Your task to perform on an android device: Open privacy settings Image 0: 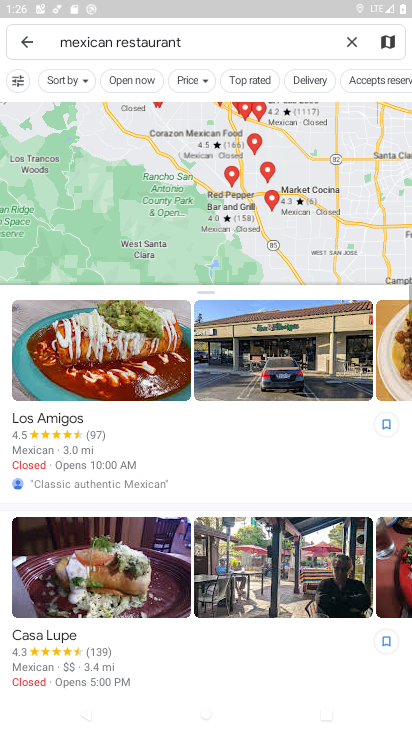
Step 0: drag from (220, 587) to (197, 162)
Your task to perform on an android device: Open privacy settings Image 1: 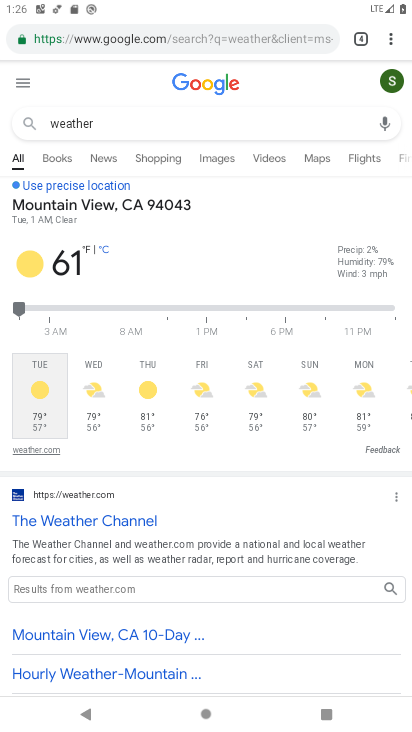
Step 1: press home button
Your task to perform on an android device: Open privacy settings Image 2: 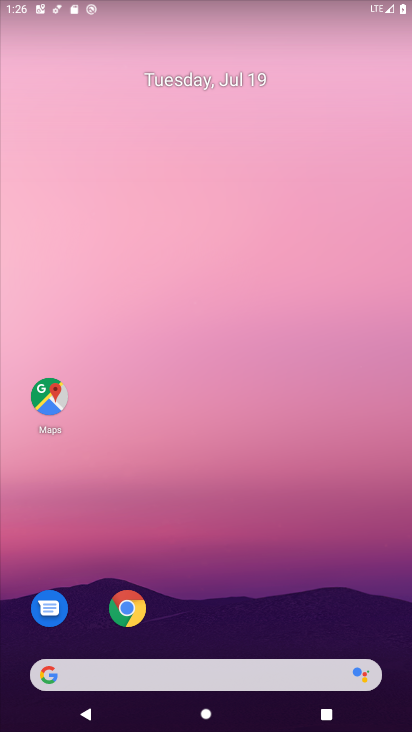
Step 2: drag from (243, 335) to (265, 162)
Your task to perform on an android device: Open privacy settings Image 3: 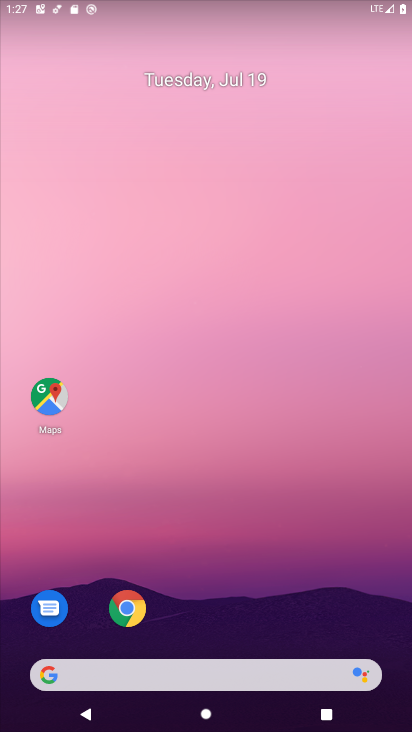
Step 3: drag from (217, 597) to (225, 111)
Your task to perform on an android device: Open privacy settings Image 4: 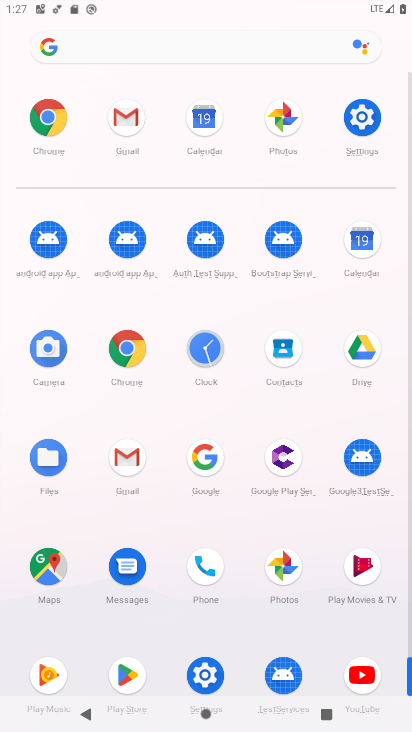
Step 4: click (369, 129)
Your task to perform on an android device: Open privacy settings Image 5: 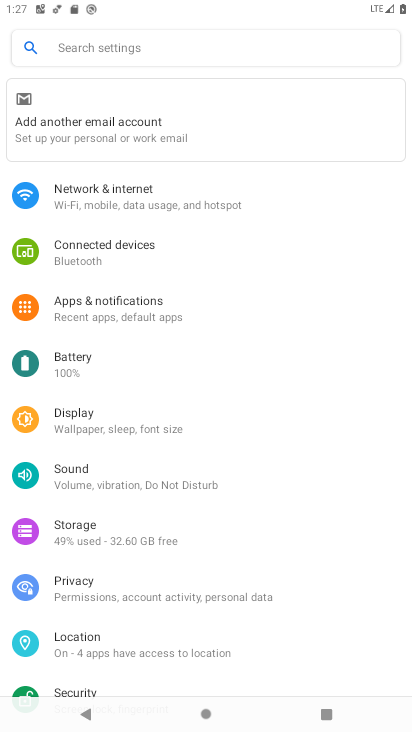
Step 5: click (120, 595)
Your task to perform on an android device: Open privacy settings Image 6: 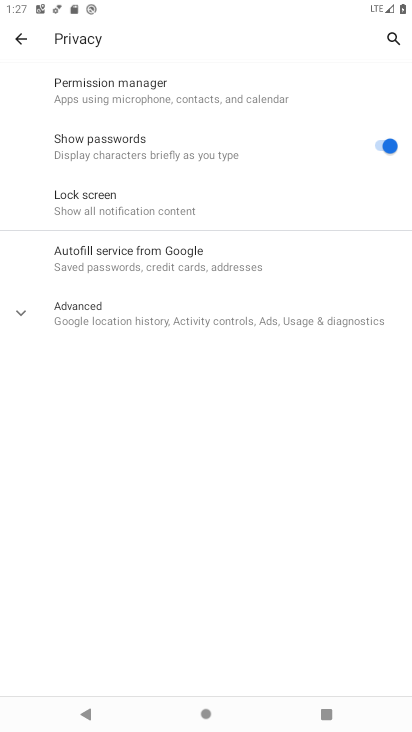
Step 6: task complete